Your task to perform on an android device: set an alarm Image 0: 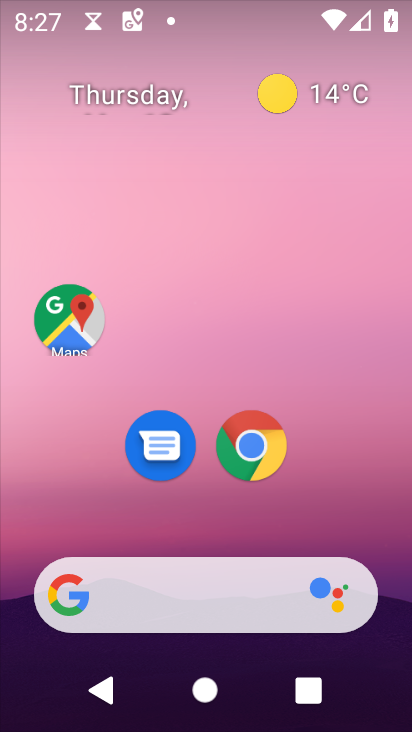
Step 0: drag from (219, 718) to (214, 188)
Your task to perform on an android device: set an alarm Image 1: 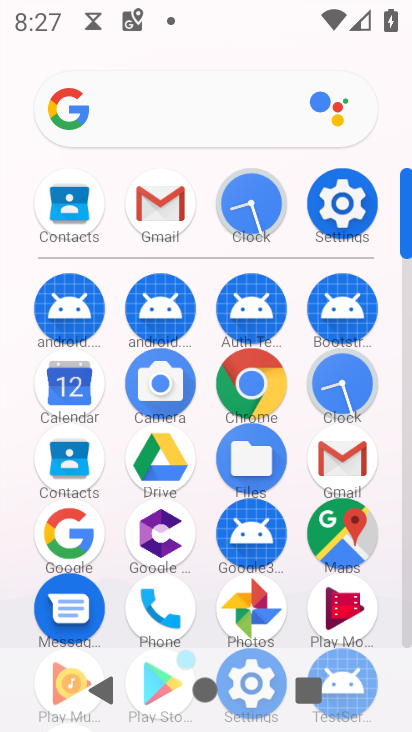
Step 1: click (346, 384)
Your task to perform on an android device: set an alarm Image 2: 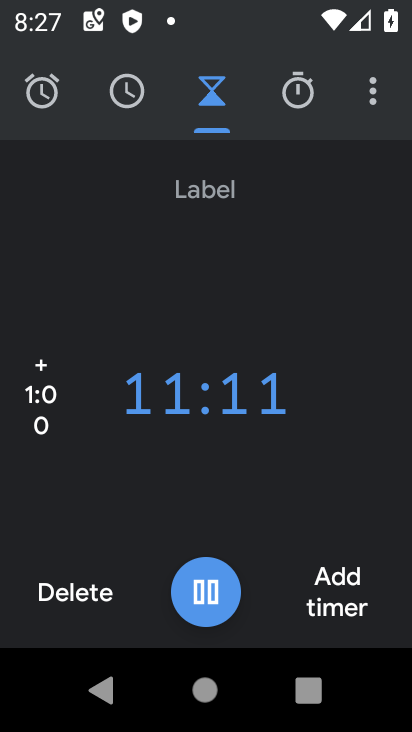
Step 2: click (44, 101)
Your task to perform on an android device: set an alarm Image 3: 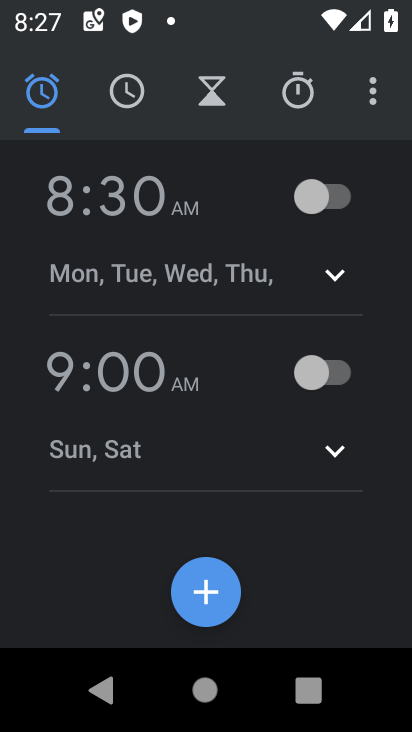
Step 3: click (208, 593)
Your task to perform on an android device: set an alarm Image 4: 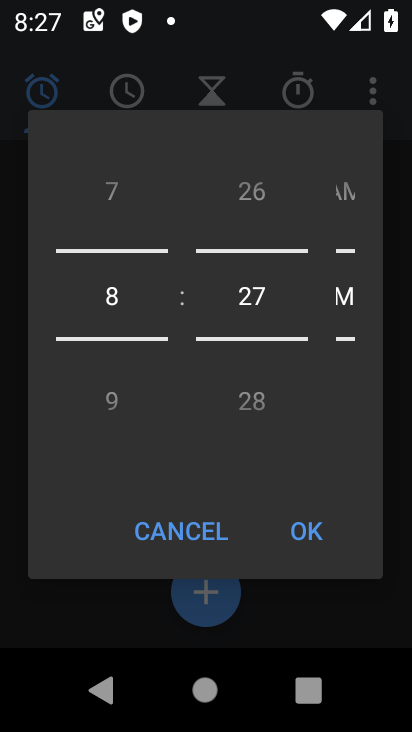
Step 4: drag from (103, 192) to (77, 355)
Your task to perform on an android device: set an alarm Image 5: 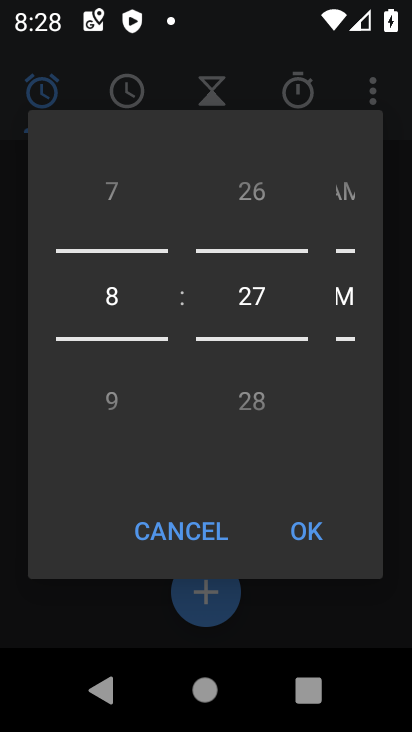
Step 5: drag from (244, 188) to (246, 362)
Your task to perform on an android device: set an alarm Image 6: 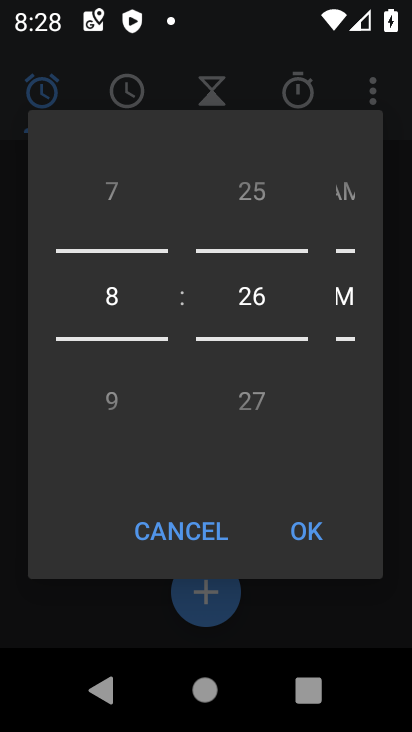
Step 6: drag from (346, 192) to (344, 388)
Your task to perform on an android device: set an alarm Image 7: 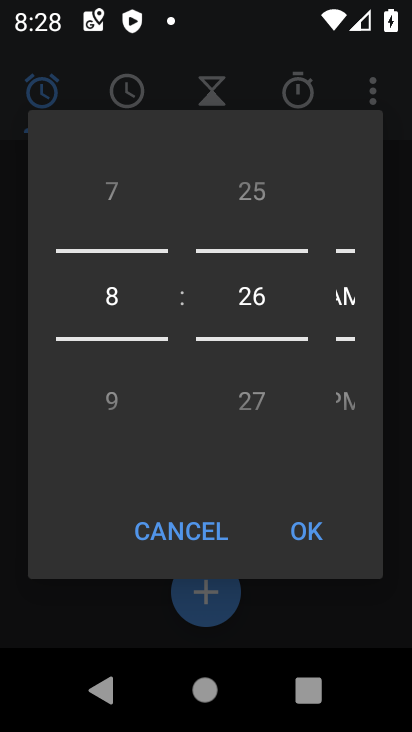
Step 7: click (312, 528)
Your task to perform on an android device: set an alarm Image 8: 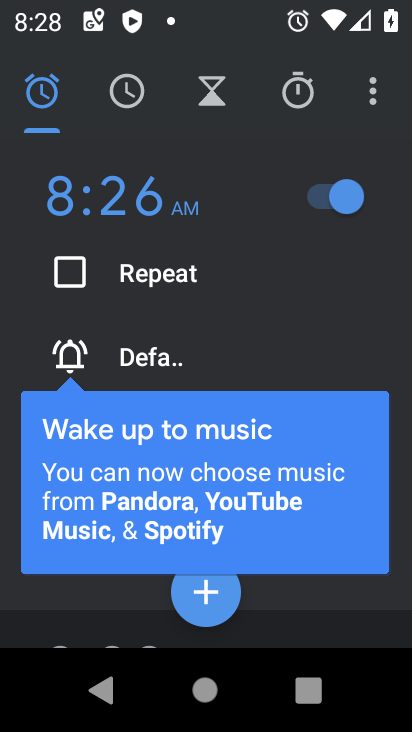
Step 8: task complete